Your task to perform on an android device: see tabs open on other devices in the chrome app Image 0: 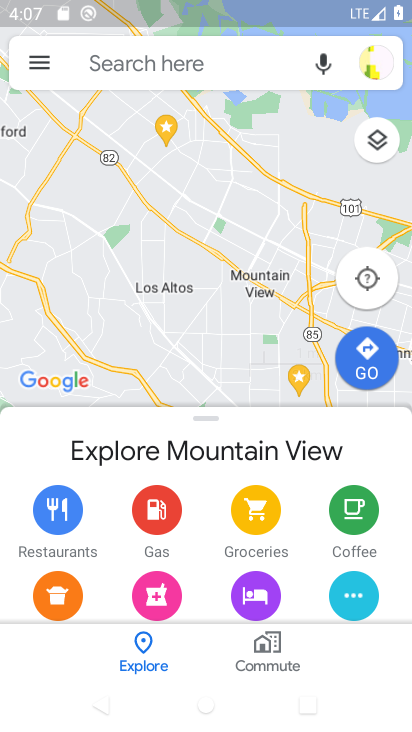
Step 0: press home button
Your task to perform on an android device: see tabs open on other devices in the chrome app Image 1: 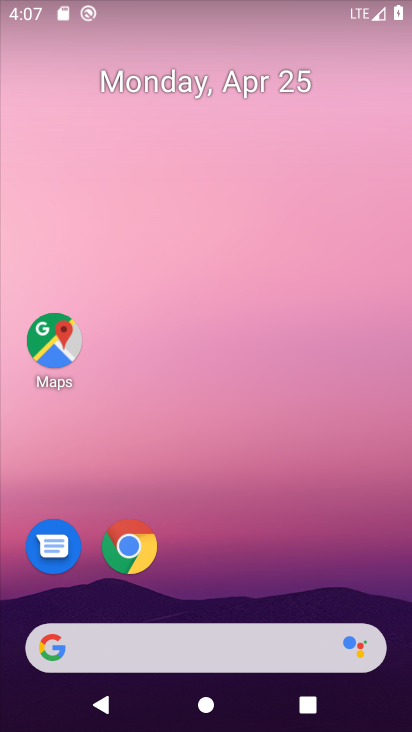
Step 1: drag from (348, 106) to (382, 1)
Your task to perform on an android device: see tabs open on other devices in the chrome app Image 2: 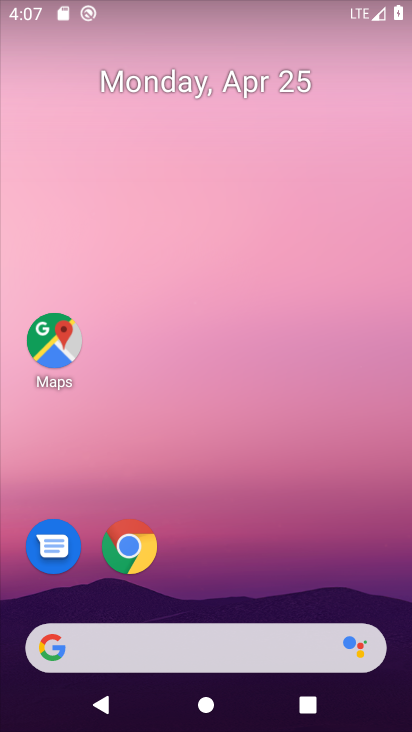
Step 2: click (128, 533)
Your task to perform on an android device: see tabs open on other devices in the chrome app Image 3: 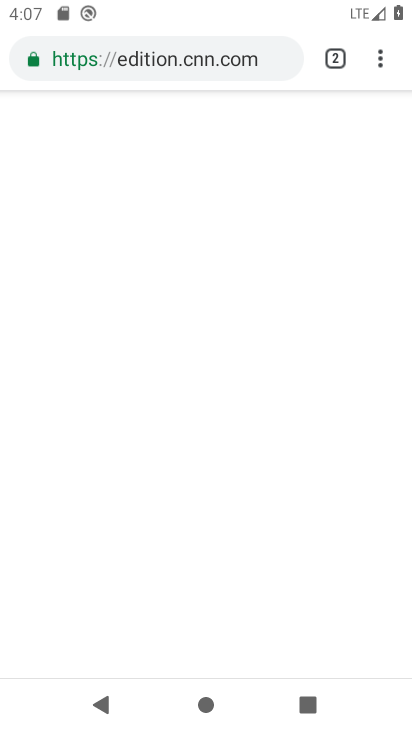
Step 3: click (380, 72)
Your task to perform on an android device: see tabs open on other devices in the chrome app Image 4: 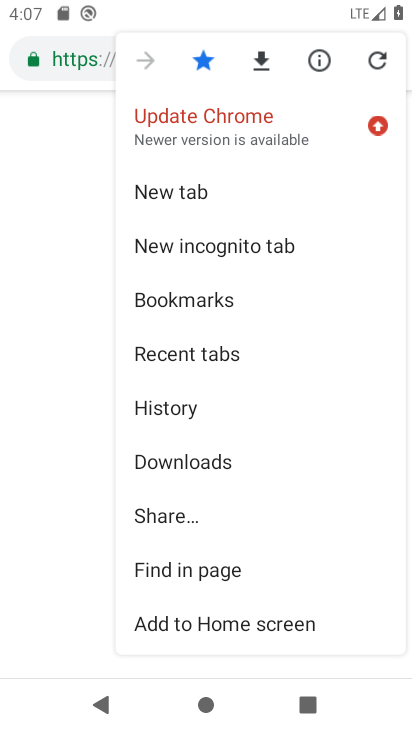
Step 4: click (169, 362)
Your task to perform on an android device: see tabs open on other devices in the chrome app Image 5: 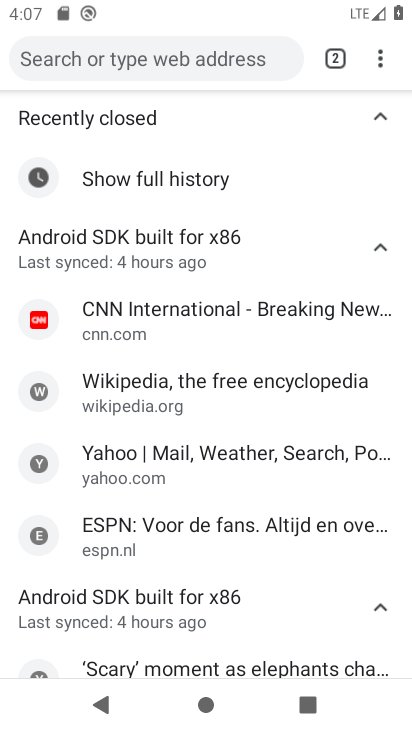
Step 5: task complete